Your task to perform on an android device: turn vacation reply on in the gmail app Image 0: 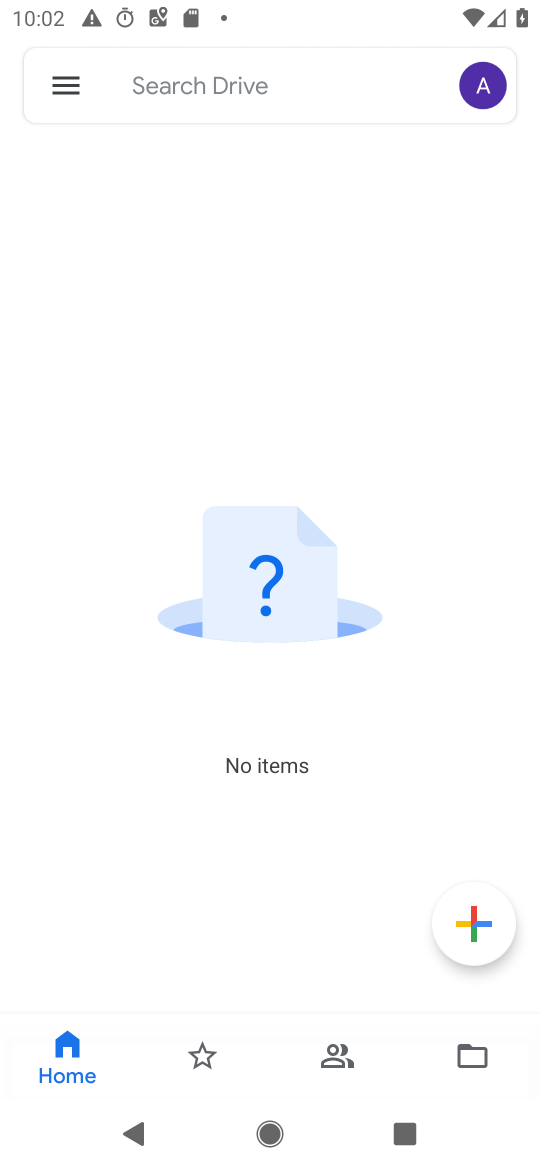
Step 0: press home button
Your task to perform on an android device: turn vacation reply on in the gmail app Image 1: 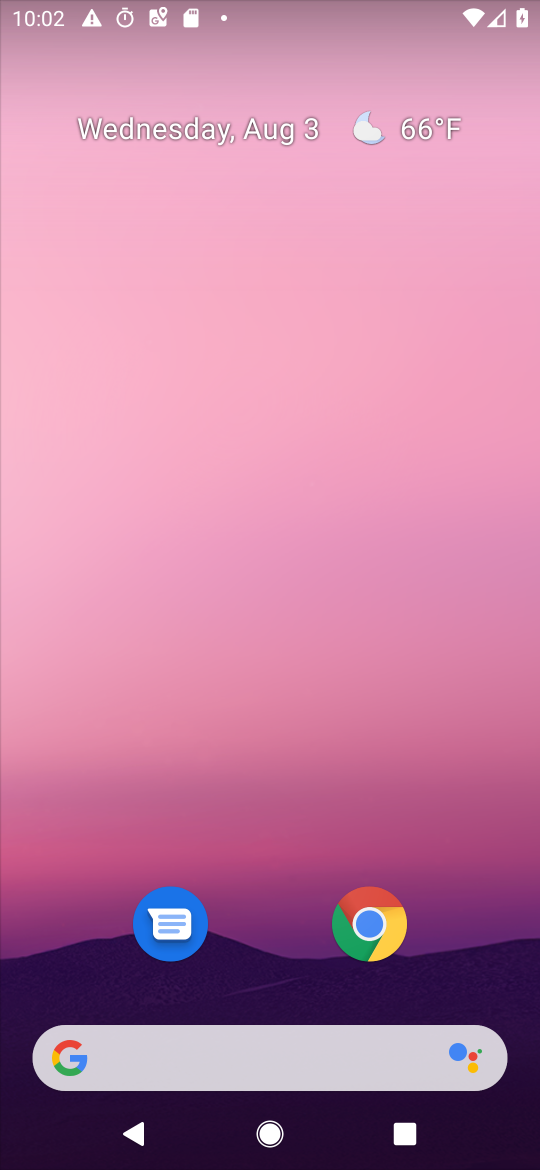
Step 1: drag from (277, 991) to (332, 95)
Your task to perform on an android device: turn vacation reply on in the gmail app Image 2: 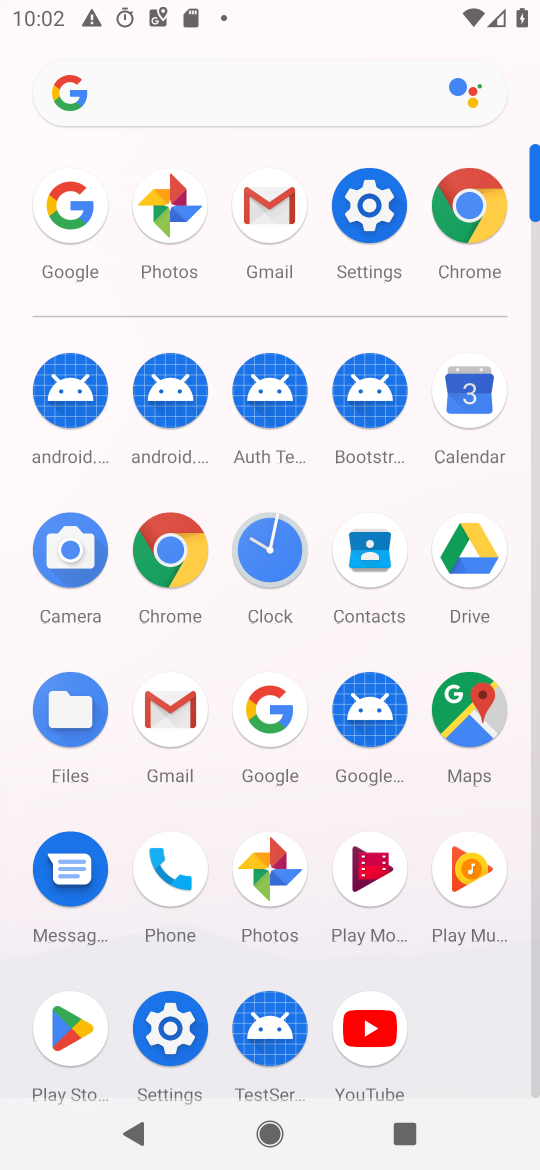
Step 2: click (266, 196)
Your task to perform on an android device: turn vacation reply on in the gmail app Image 3: 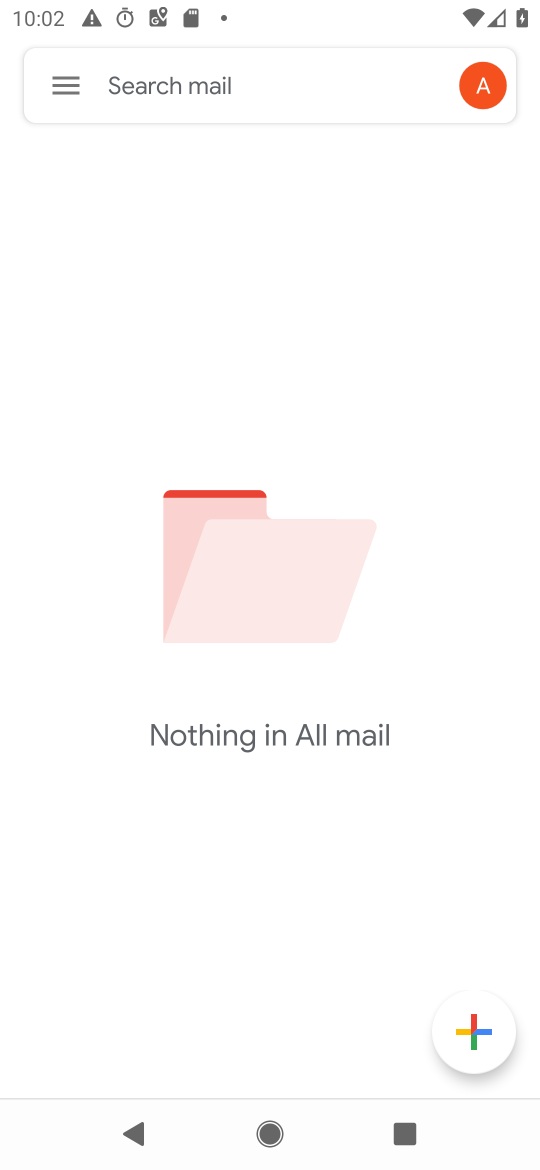
Step 3: click (67, 72)
Your task to perform on an android device: turn vacation reply on in the gmail app Image 4: 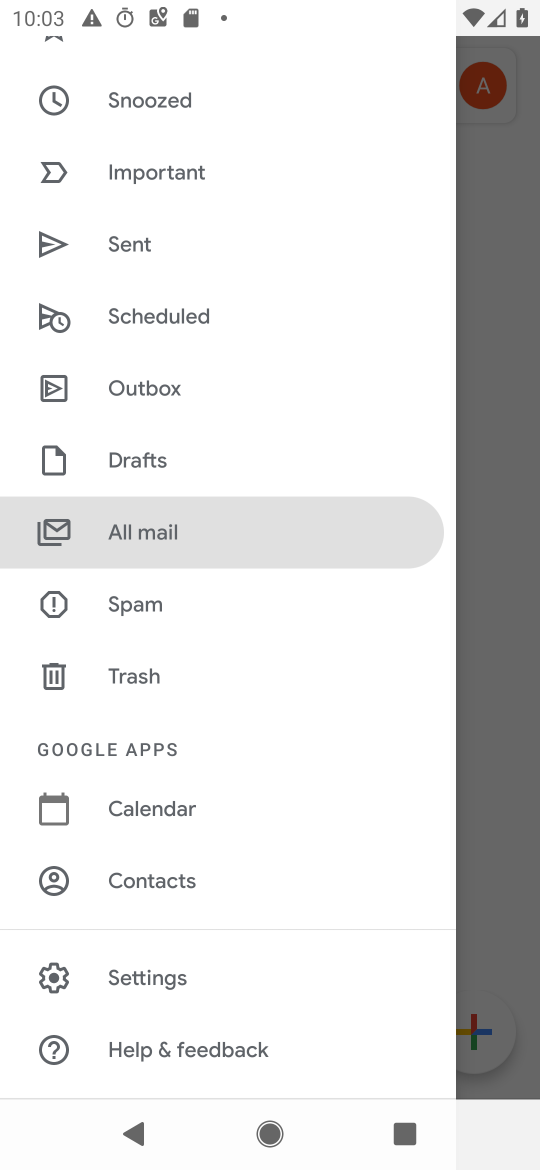
Step 4: click (206, 974)
Your task to perform on an android device: turn vacation reply on in the gmail app Image 5: 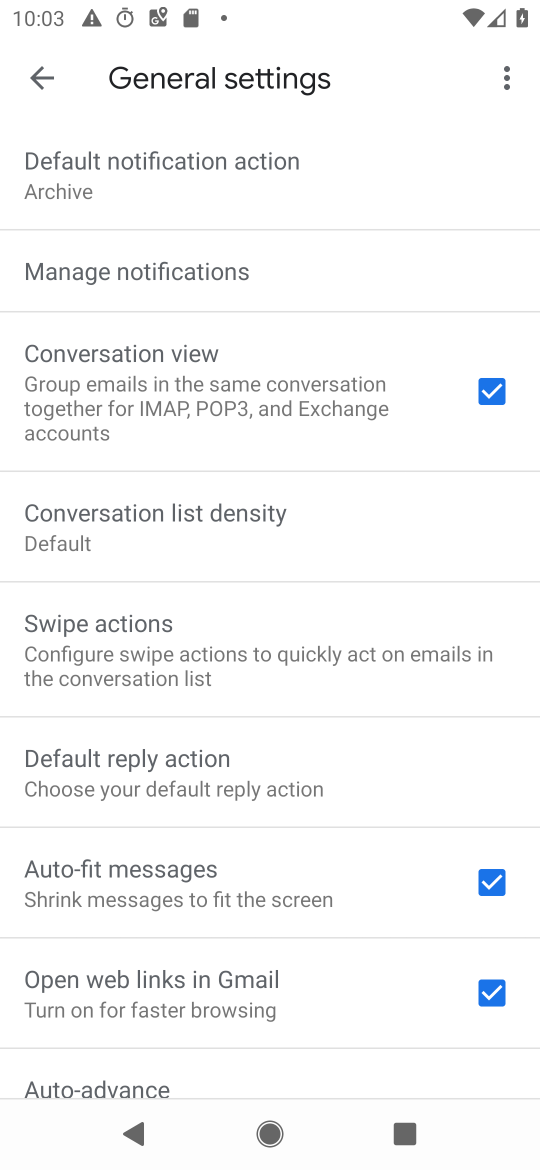
Step 5: click (35, 74)
Your task to perform on an android device: turn vacation reply on in the gmail app Image 6: 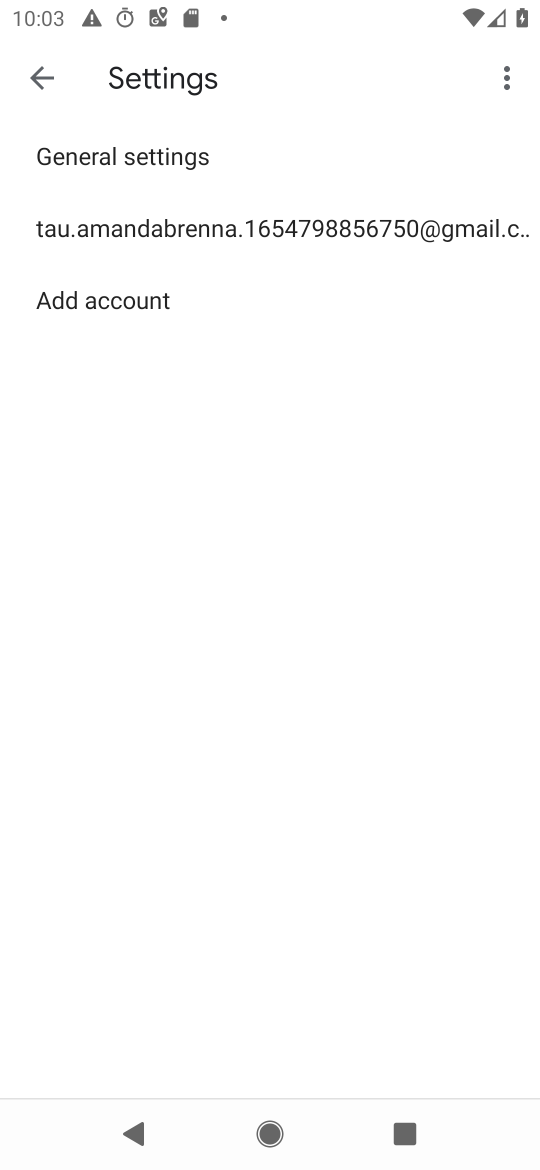
Step 6: click (204, 217)
Your task to perform on an android device: turn vacation reply on in the gmail app Image 7: 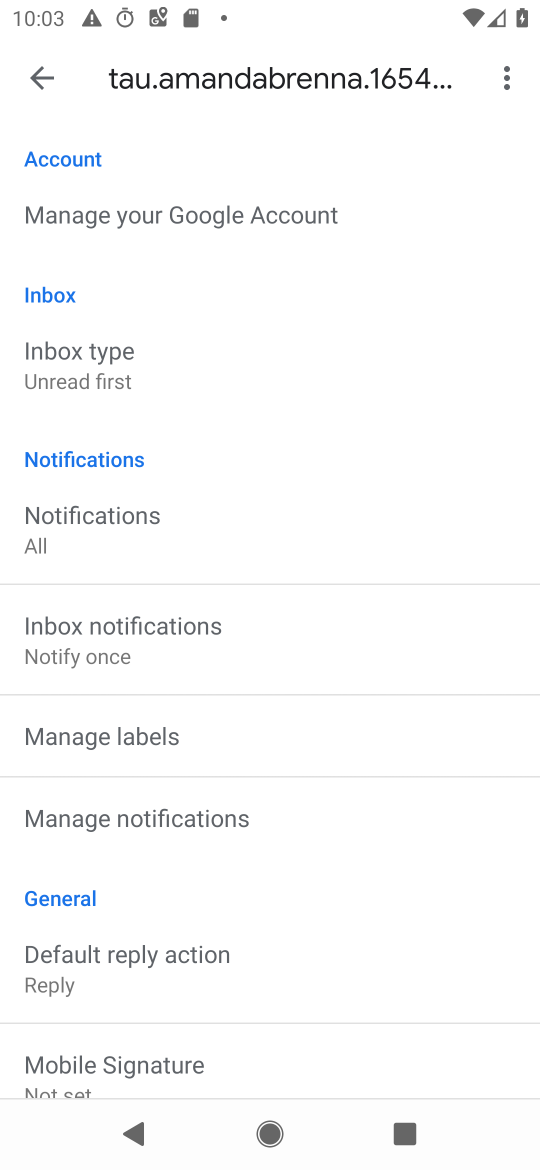
Step 7: drag from (228, 1014) to (221, 299)
Your task to perform on an android device: turn vacation reply on in the gmail app Image 8: 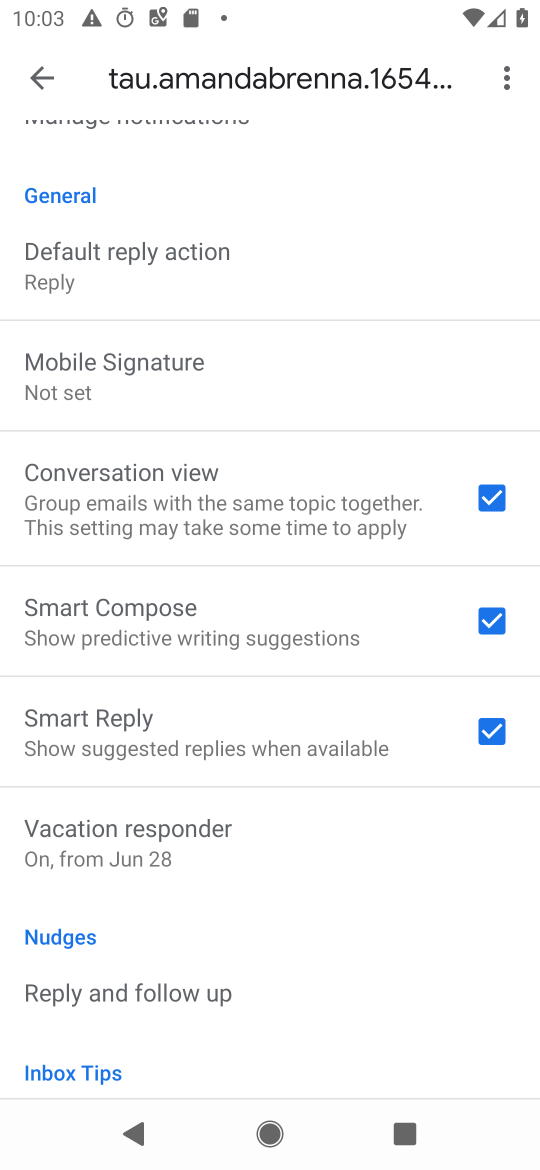
Step 8: click (182, 843)
Your task to perform on an android device: turn vacation reply on in the gmail app Image 9: 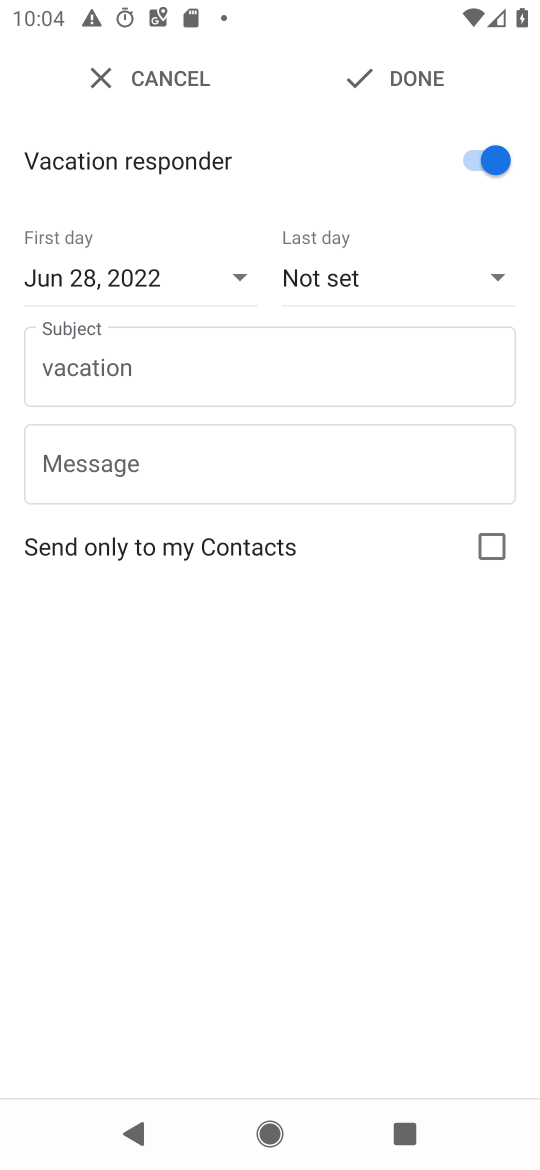
Step 9: task complete